Your task to perform on an android device: Search for vegetarian restaurants on Maps Image 0: 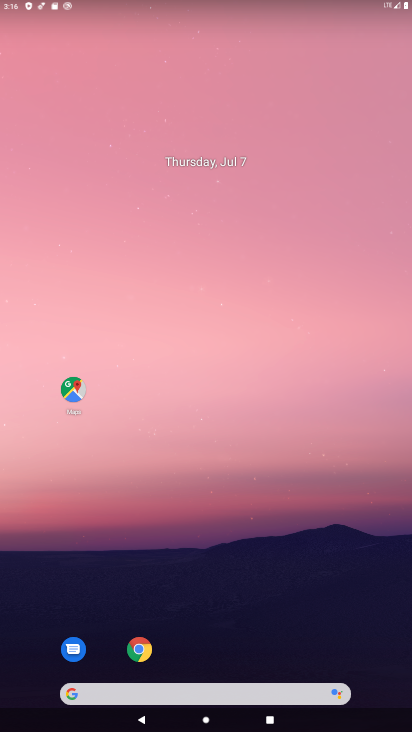
Step 0: drag from (233, 566) to (215, 303)
Your task to perform on an android device: Search for vegetarian restaurants on Maps Image 1: 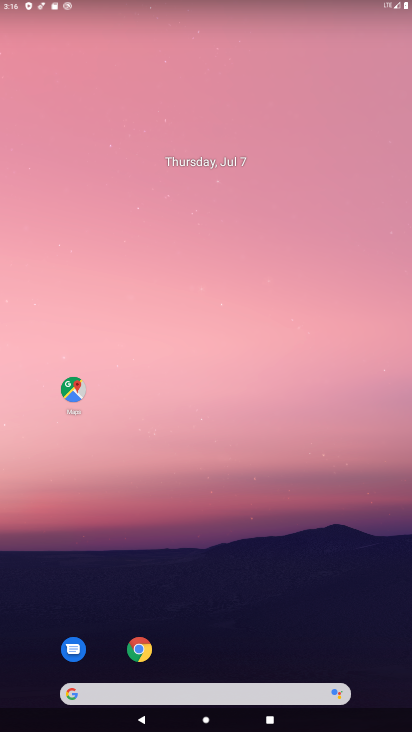
Step 1: drag from (281, 658) to (286, 3)
Your task to perform on an android device: Search for vegetarian restaurants on Maps Image 2: 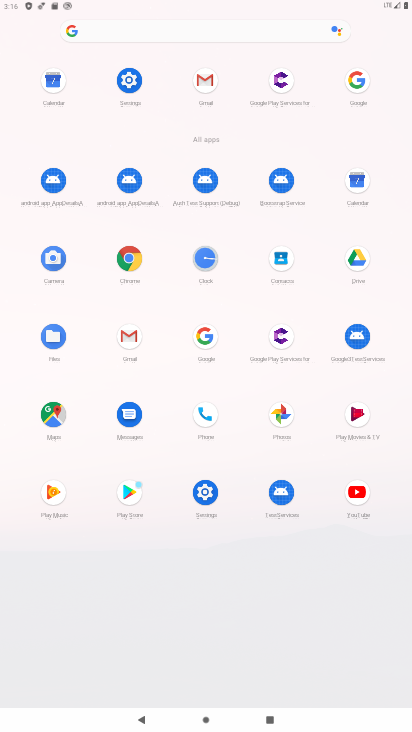
Step 2: click (55, 435)
Your task to perform on an android device: Search for vegetarian restaurants on Maps Image 3: 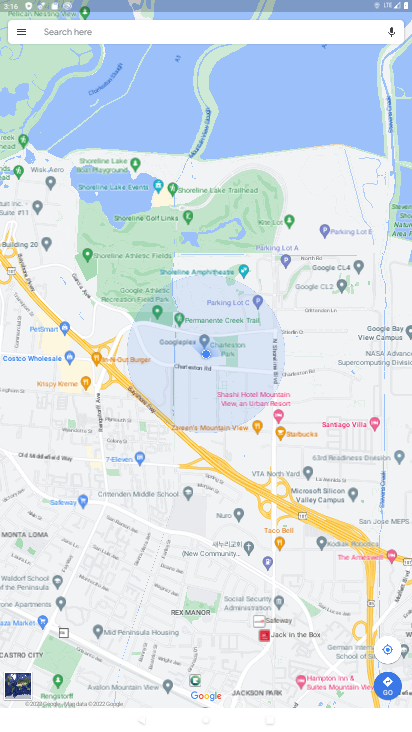
Step 3: click (241, 29)
Your task to perform on an android device: Search for vegetarian restaurants on Maps Image 4: 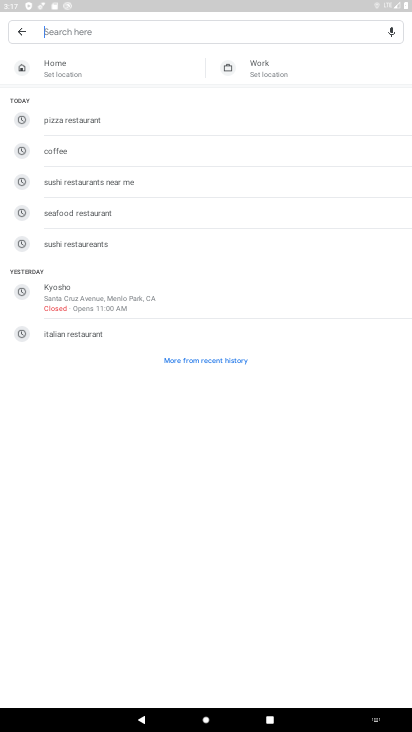
Step 4: type "vegetarian restaurants"
Your task to perform on an android device: Search for vegetarian restaurants on Maps Image 5: 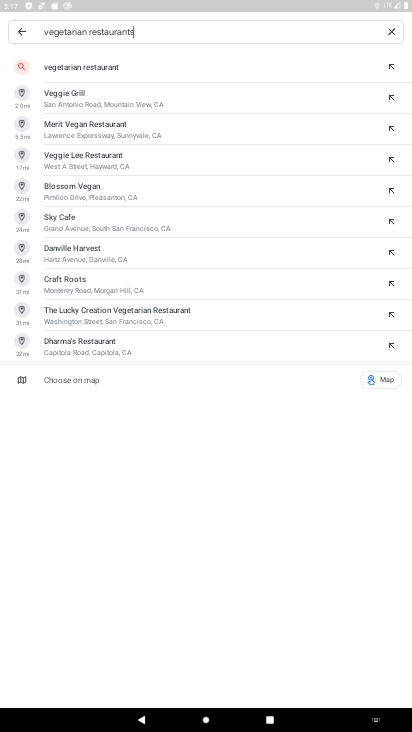
Step 5: task complete